Your task to perform on an android device: open app "DoorDash - Dasher" (install if not already installed) and enter user name: "resistor@inbox.com" and password: "cholera" Image 0: 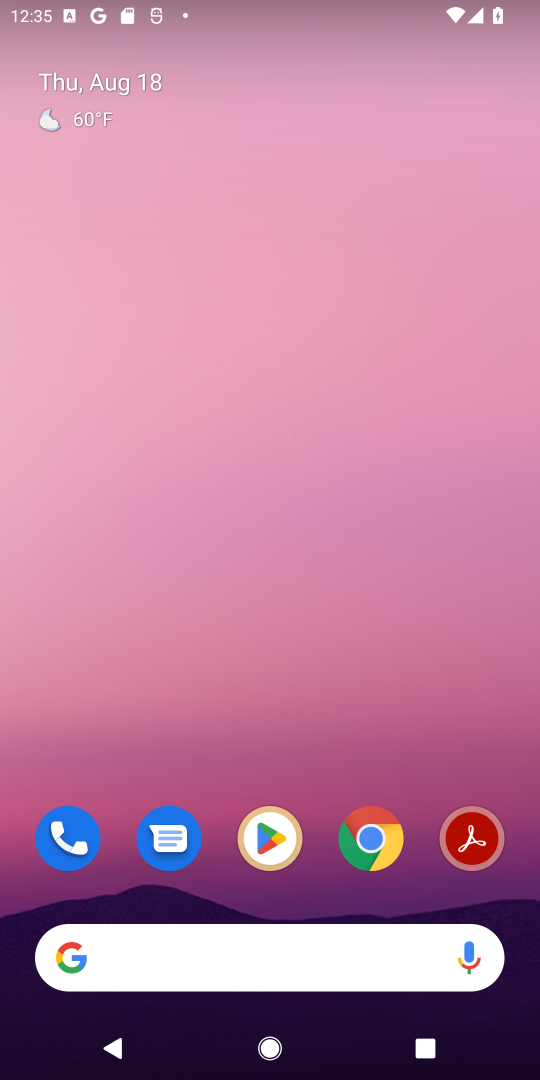
Step 0: click (266, 862)
Your task to perform on an android device: open app "DoorDash - Dasher" (install if not already installed) and enter user name: "resistor@inbox.com" and password: "cholera" Image 1: 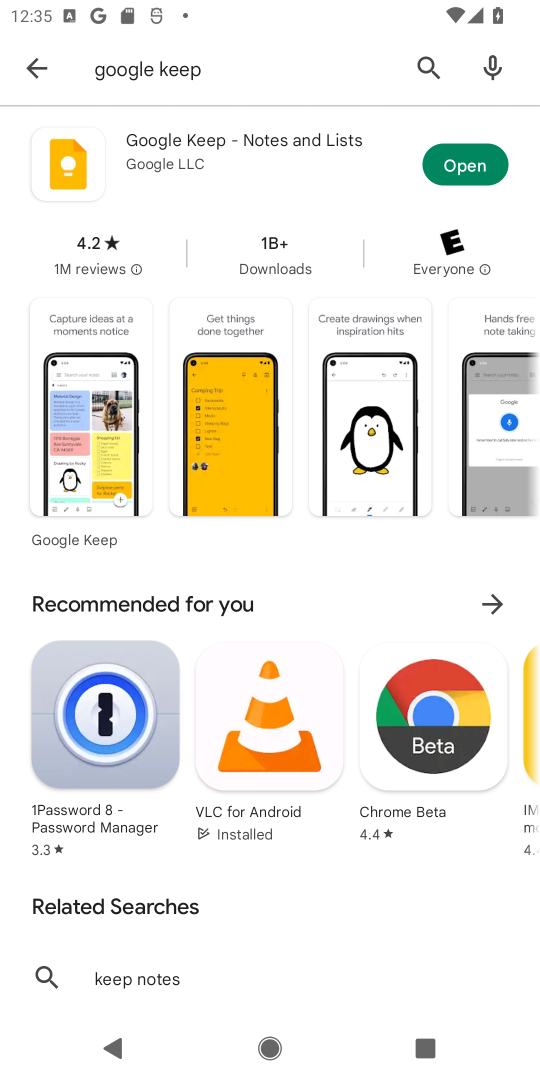
Step 1: click (436, 64)
Your task to perform on an android device: open app "DoorDash - Dasher" (install if not already installed) and enter user name: "resistor@inbox.com" and password: "cholera" Image 2: 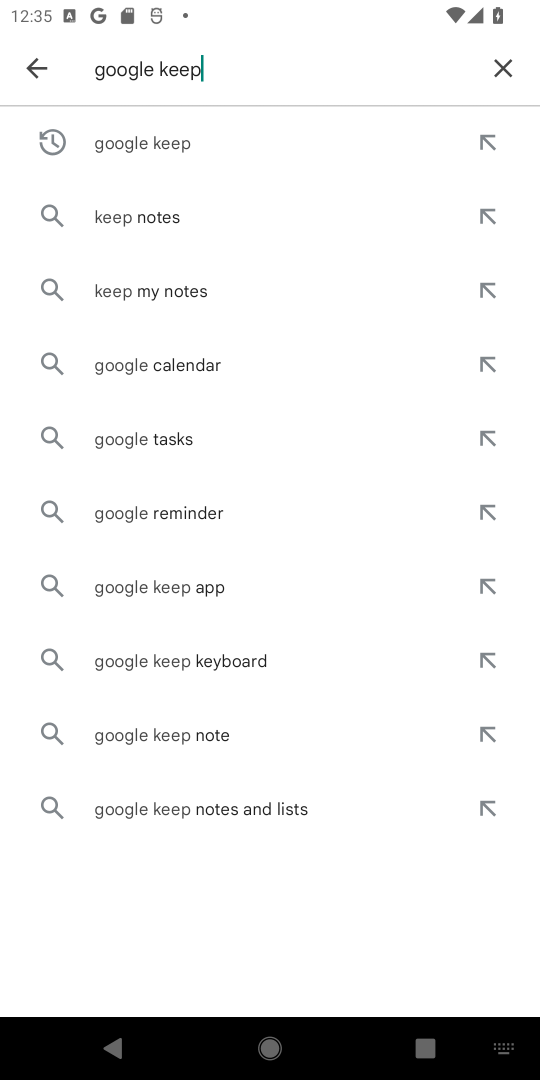
Step 2: click (500, 62)
Your task to perform on an android device: open app "DoorDash - Dasher" (install if not already installed) and enter user name: "resistor@inbox.com" and password: "cholera" Image 3: 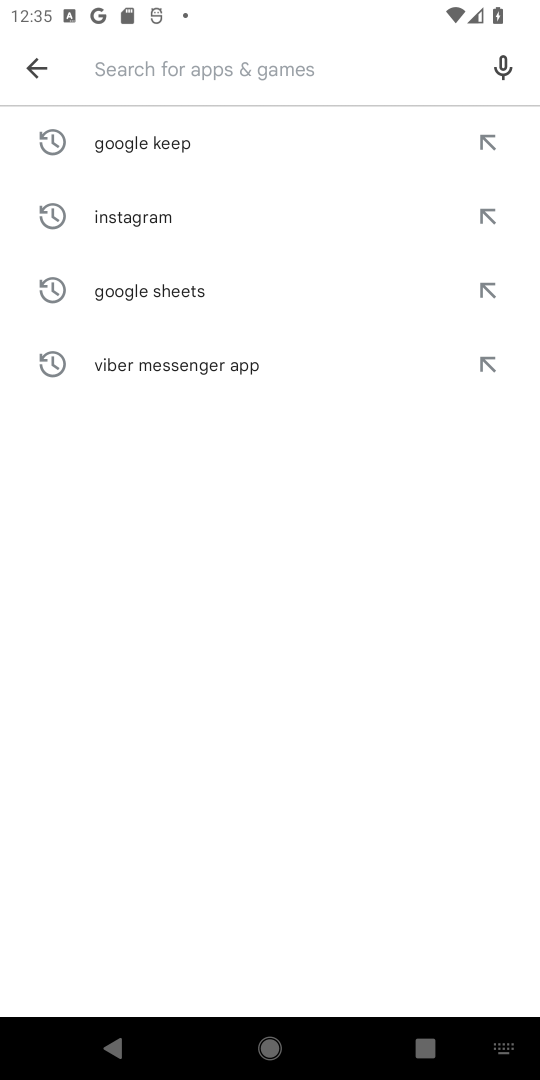
Step 3: type "DoorDash - Dasher"
Your task to perform on an android device: open app "DoorDash - Dasher" (install if not already installed) and enter user name: "resistor@inbox.com" and password: "cholera" Image 4: 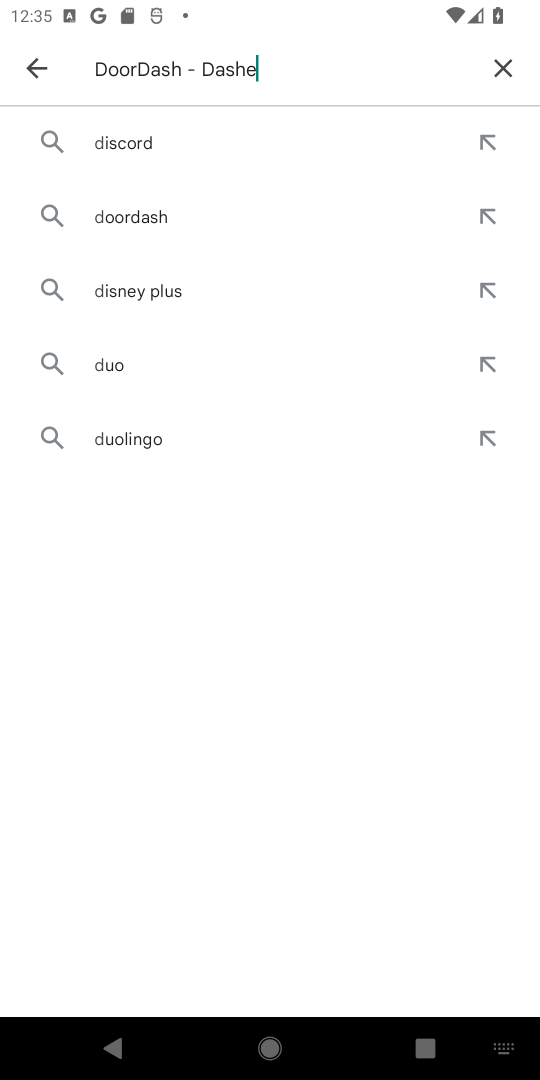
Step 4: type ""
Your task to perform on an android device: open app "DoorDash - Dasher" (install if not already installed) and enter user name: "resistor@inbox.com" and password: "cholera" Image 5: 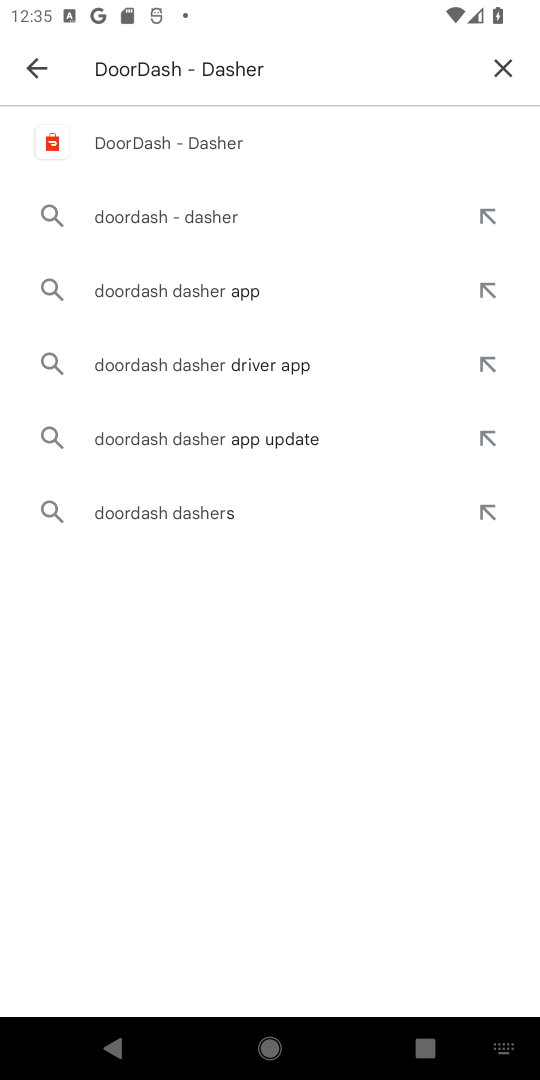
Step 5: click (178, 149)
Your task to perform on an android device: open app "DoorDash - Dasher" (install if not already installed) and enter user name: "resistor@inbox.com" and password: "cholera" Image 6: 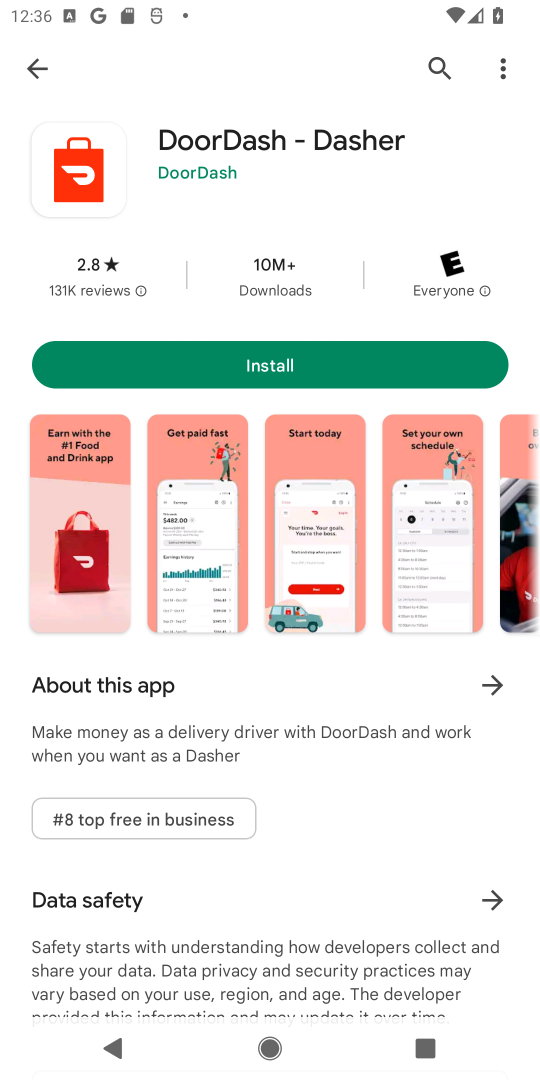
Step 6: click (222, 367)
Your task to perform on an android device: open app "DoorDash - Dasher" (install if not already installed) and enter user name: "resistor@inbox.com" and password: "cholera" Image 7: 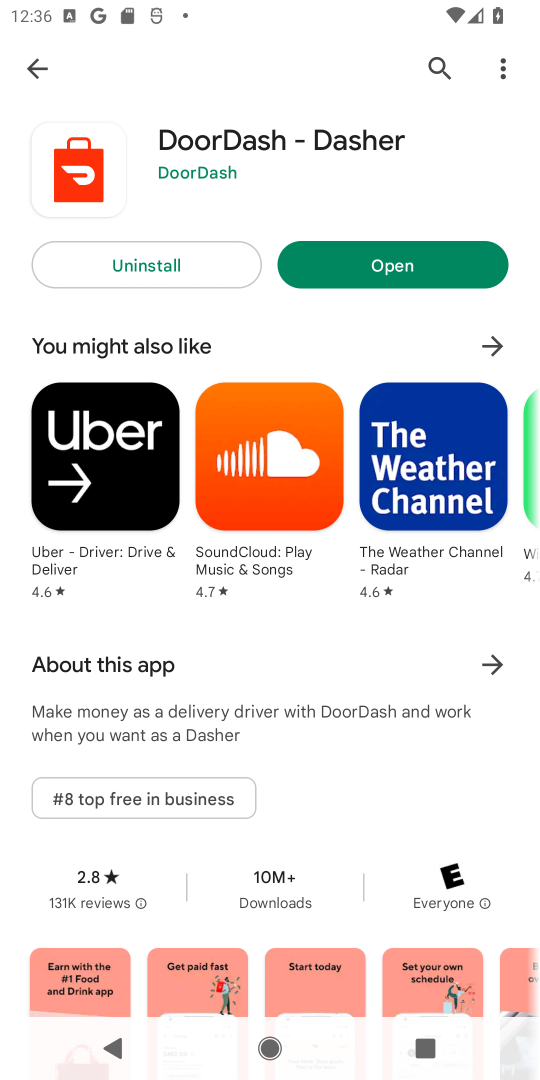
Step 7: click (342, 260)
Your task to perform on an android device: open app "DoorDash - Dasher" (install if not already installed) and enter user name: "resistor@inbox.com" and password: "cholera" Image 8: 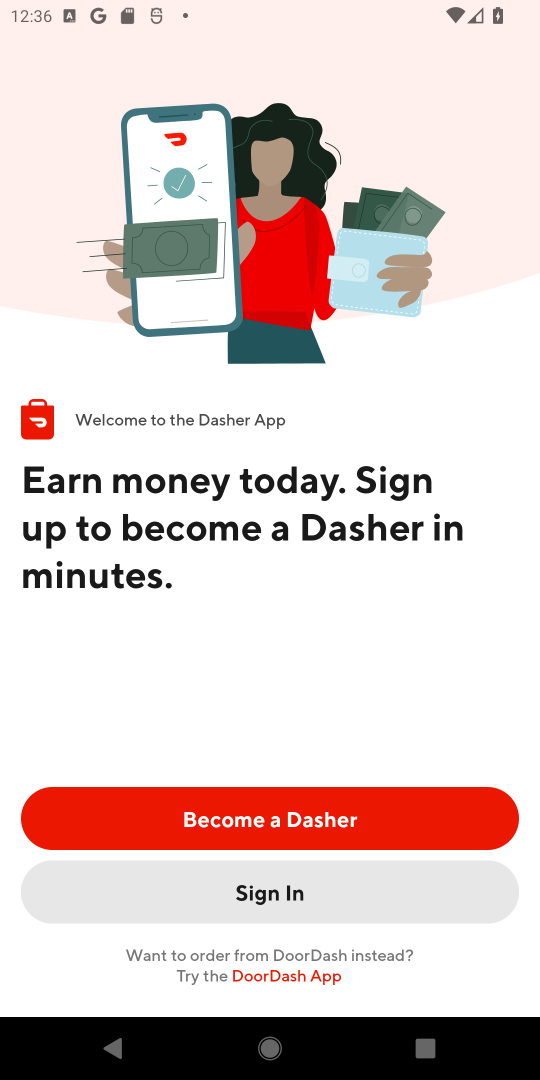
Step 8: task complete